Your task to perform on an android device: open app "Truecaller" (install if not already installed) and enter user name: "coauthor@gmail.com" and password: "quadrangle" Image 0: 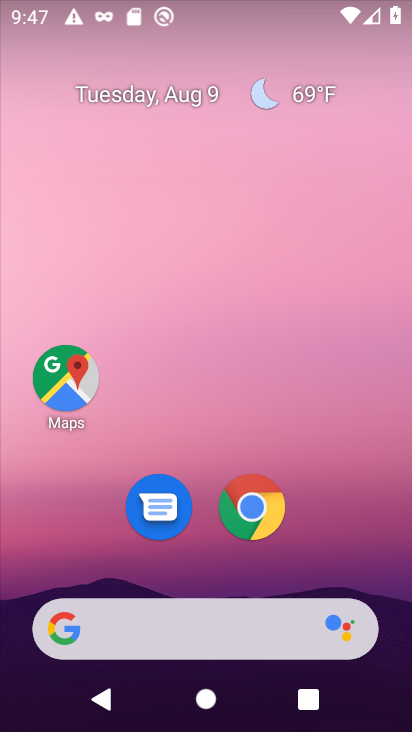
Step 0: drag from (214, 571) to (197, 121)
Your task to perform on an android device: open app "Truecaller" (install if not already installed) and enter user name: "coauthor@gmail.com" and password: "quadrangle" Image 1: 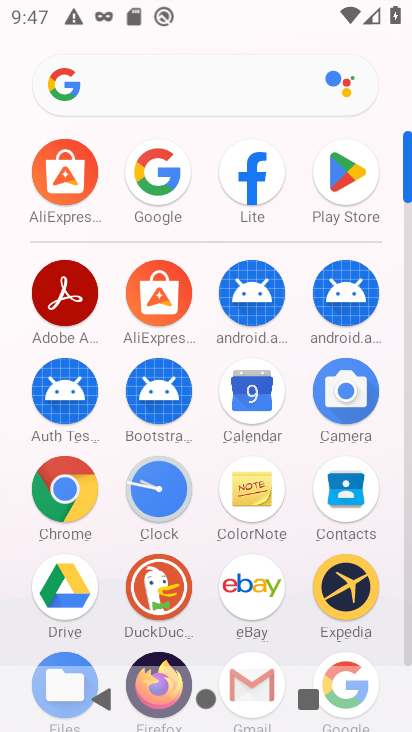
Step 1: click (341, 174)
Your task to perform on an android device: open app "Truecaller" (install if not already installed) and enter user name: "coauthor@gmail.com" and password: "quadrangle" Image 2: 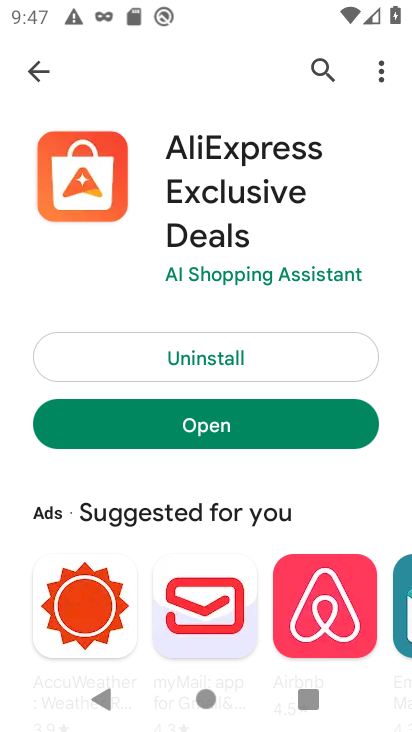
Step 2: click (319, 64)
Your task to perform on an android device: open app "Truecaller" (install if not already installed) and enter user name: "coauthor@gmail.com" and password: "quadrangle" Image 3: 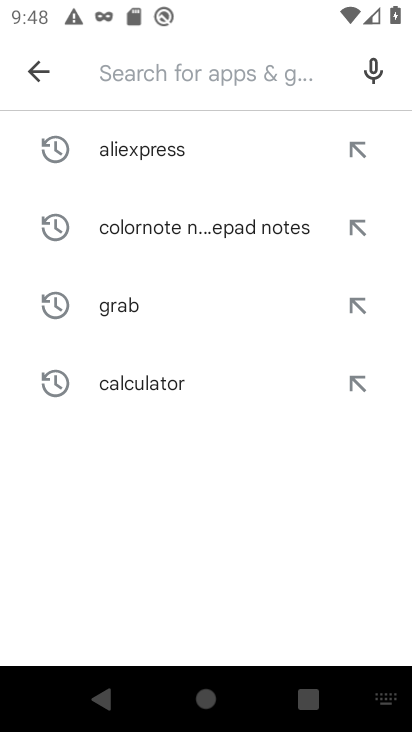
Step 3: type "Truecaller"
Your task to perform on an android device: open app "Truecaller" (install if not already installed) and enter user name: "coauthor@gmail.com" and password: "quadrangle" Image 4: 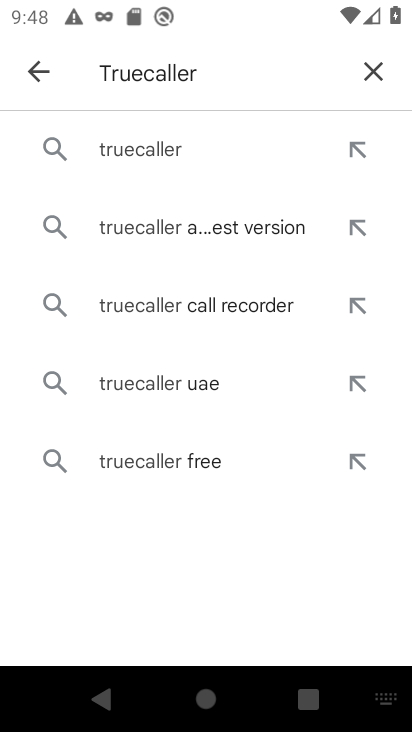
Step 4: click (169, 153)
Your task to perform on an android device: open app "Truecaller" (install if not already installed) and enter user name: "coauthor@gmail.com" and password: "quadrangle" Image 5: 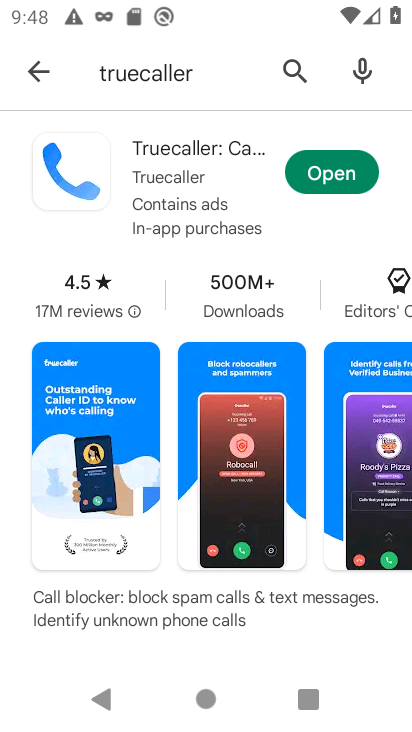
Step 5: click (336, 175)
Your task to perform on an android device: open app "Truecaller" (install if not already installed) and enter user name: "coauthor@gmail.com" and password: "quadrangle" Image 6: 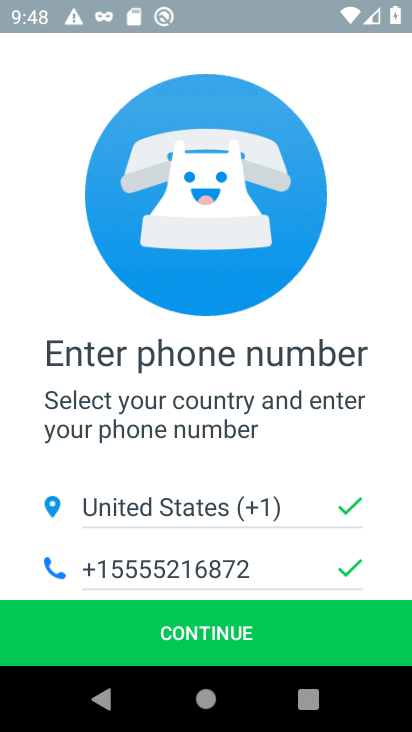
Step 6: drag from (254, 468) to (357, 131)
Your task to perform on an android device: open app "Truecaller" (install if not already installed) and enter user name: "coauthor@gmail.com" and password: "quadrangle" Image 7: 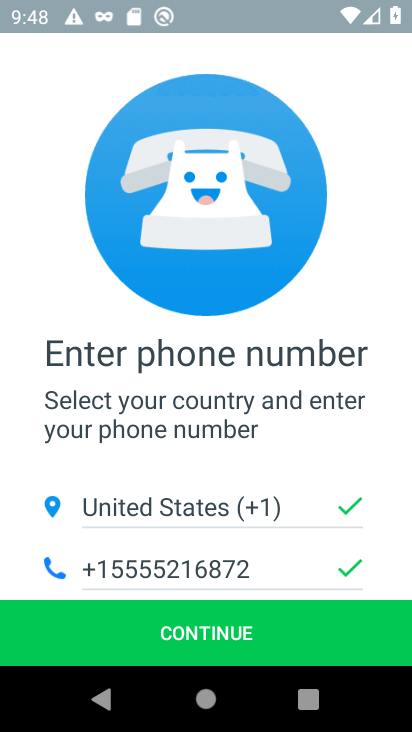
Step 7: click (210, 642)
Your task to perform on an android device: open app "Truecaller" (install if not already installed) and enter user name: "coauthor@gmail.com" and password: "quadrangle" Image 8: 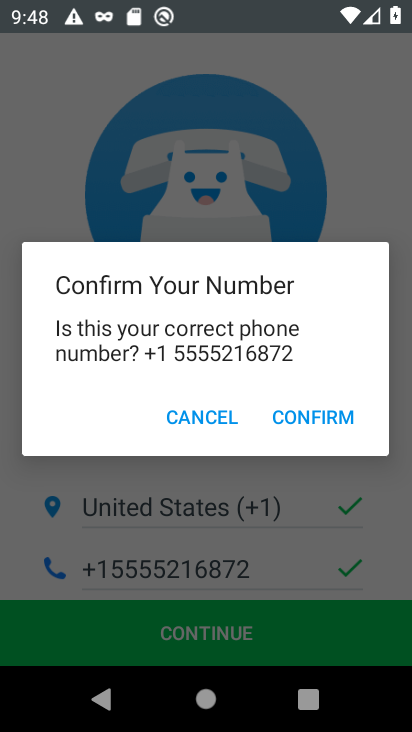
Step 8: click (279, 418)
Your task to perform on an android device: open app "Truecaller" (install if not already installed) and enter user name: "coauthor@gmail.com" and password: "quadrangle" Image 9: 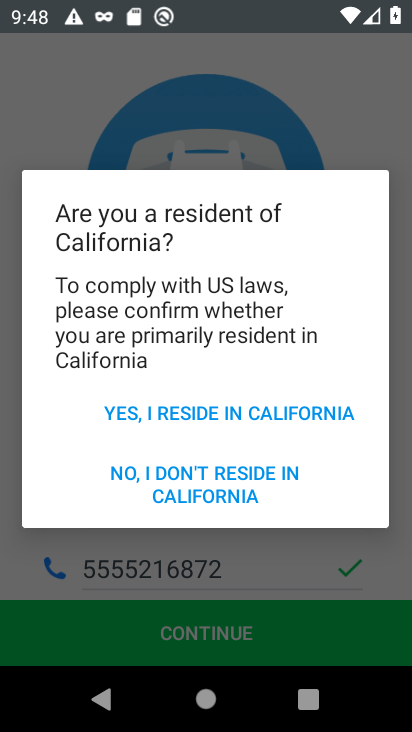
Step 9: click (226, 480)
Your task to perform on an android device: open app "Truecaller" (install if not already installed) and enter user name: "coauthor@gmail.com" and password: "quadrangle" Image 10: 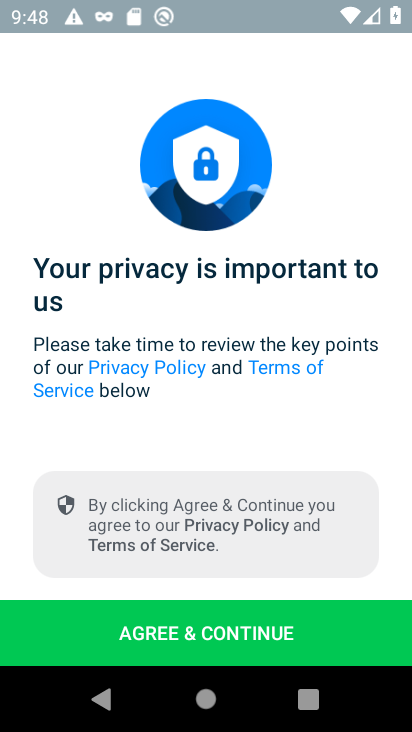
Step 10: click (183, 629)
Your task to perform on an android device: open app "Truecaller" (install if not already installed) and enter user name: "coauthor@gmail.com" and password: "quadrangle" Image 11: 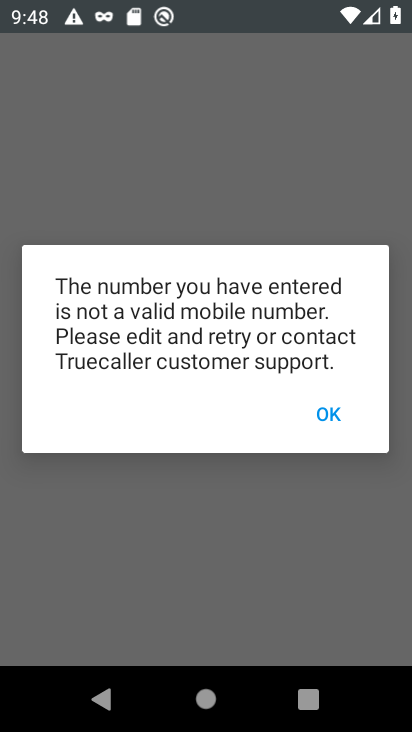
Step 11: click (324, 421)
Your task to perform on an android device: open app "Truecaller" (install if not already installed) and enter user name: "coauthor@gmail.com" and password: "quadrangle" Image 12: 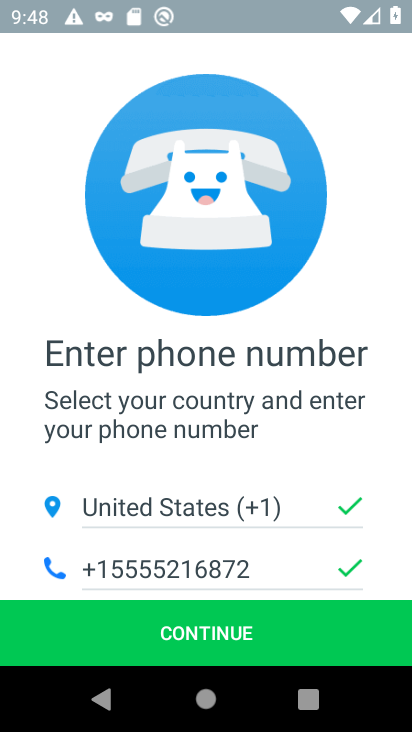
Step 12: task complete